Your task to perform on an android device: open wifi settings Image 0: 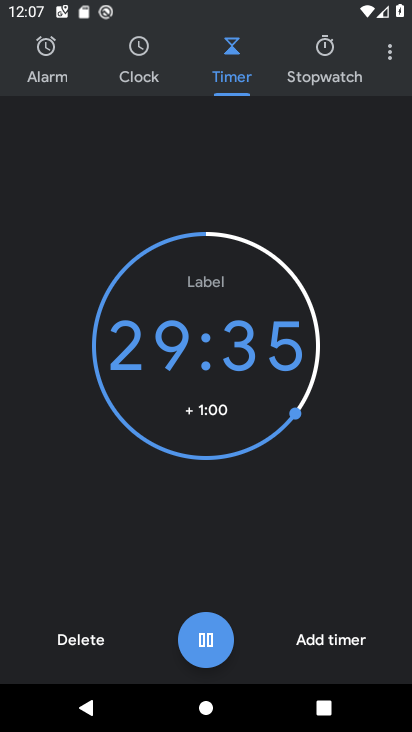
Step 0: press home button
Your task to perform on an android device: open wifi settings Image 1: 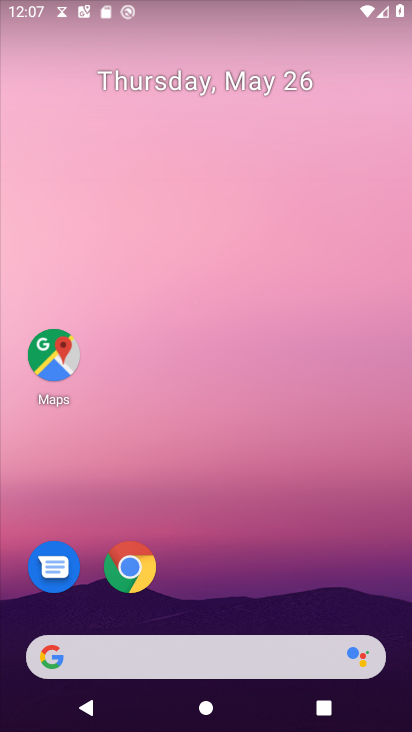
Step 1: drag from (241, 597) to (173, 243)
Your task to perform on an android device: open wifi settings Image 2: 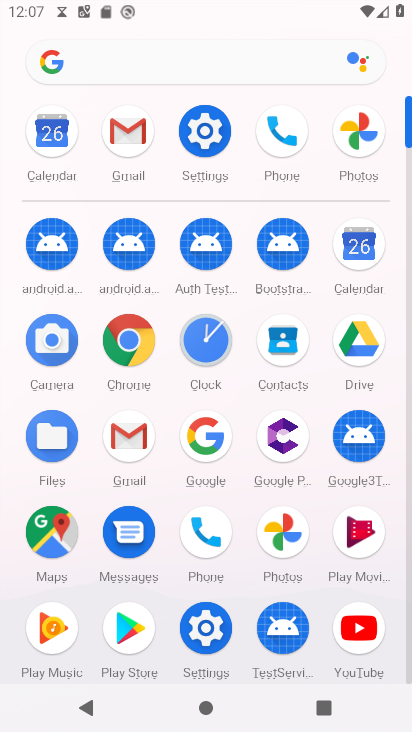
Step 2: click (213, 140)
Your task to perform on an android device: open wifi settings Image 3: 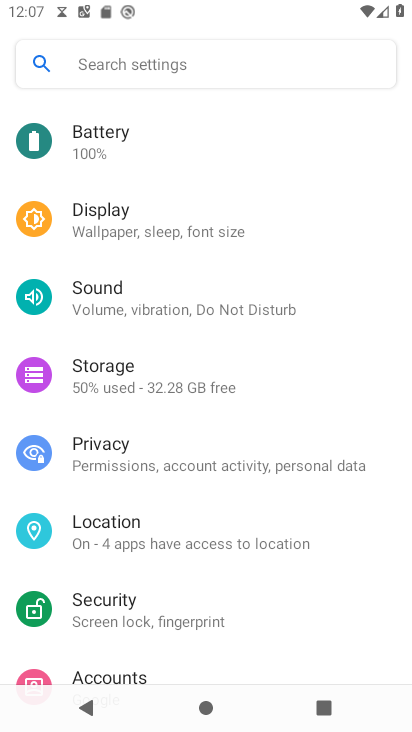
Step 3: drag from (173, 155) to (199, 639)
Your task to perform on an android device: open wifi settings Image 4: 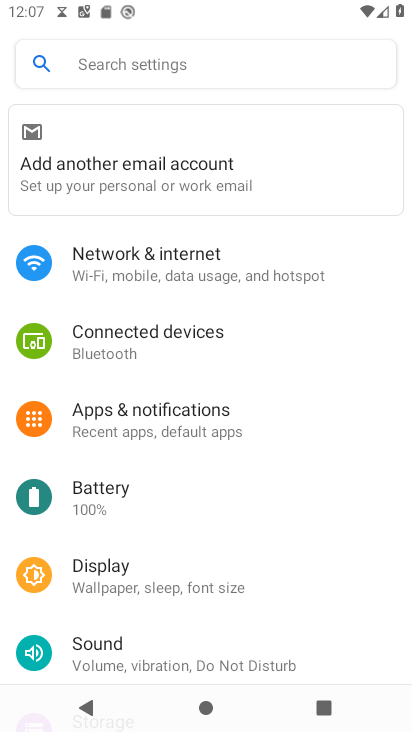
Step 4: click (182, 247)
Your task to perform on an android device: open wifi settings Image 5: 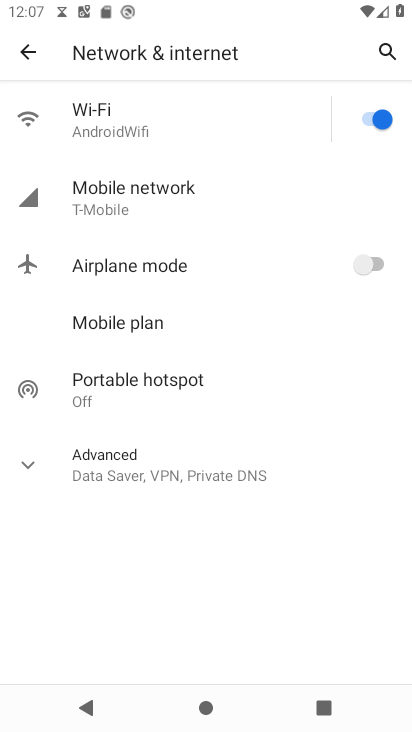
Step 5: task complete